Your task to perform on an android device: Search for sushi restaurants on Maps Image 0: 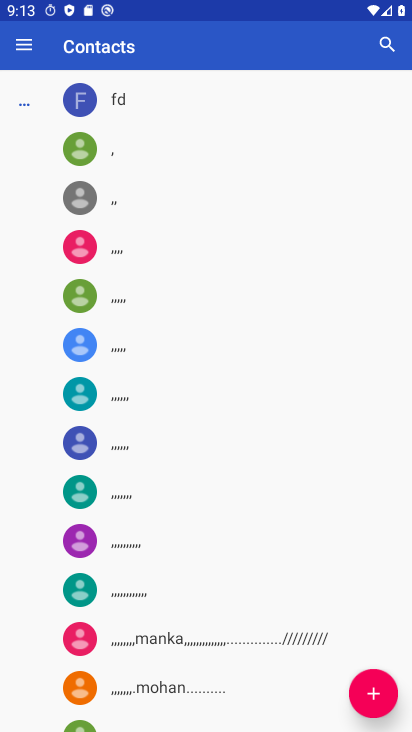
Step 0: press back button
Your task to perform on an android device: Search for sushi restaurants on Maps Image 1: 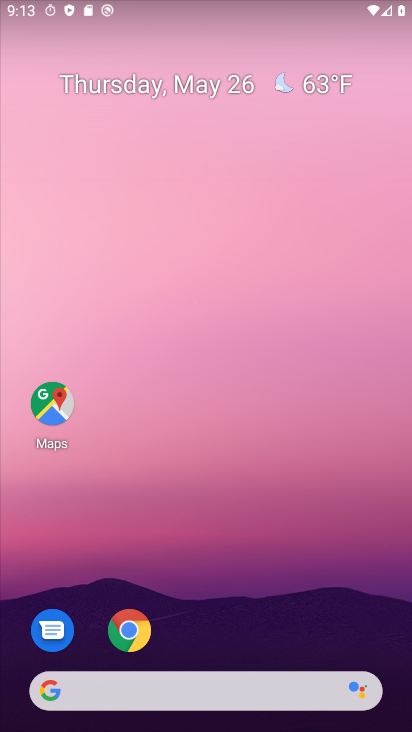
Step 1: drag from (202, 619) to (200, 133)
Your task to perform on an android device: Search for sushi restaurants on Maps Image 2: 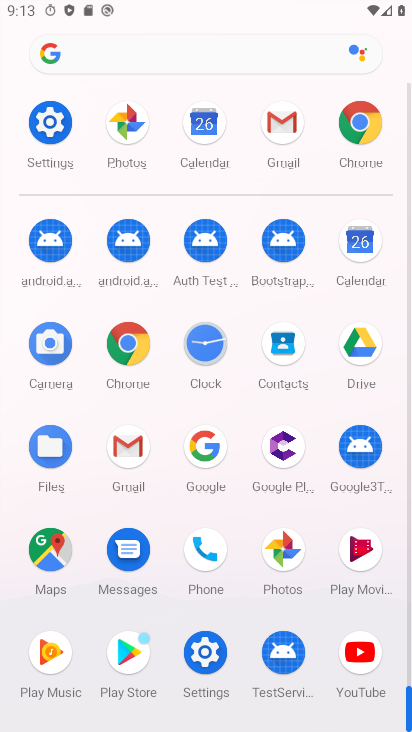
Step 2: click (53, 556)
Your task to perform on an android device: Search for sushi restaurants on Maps Image 3: 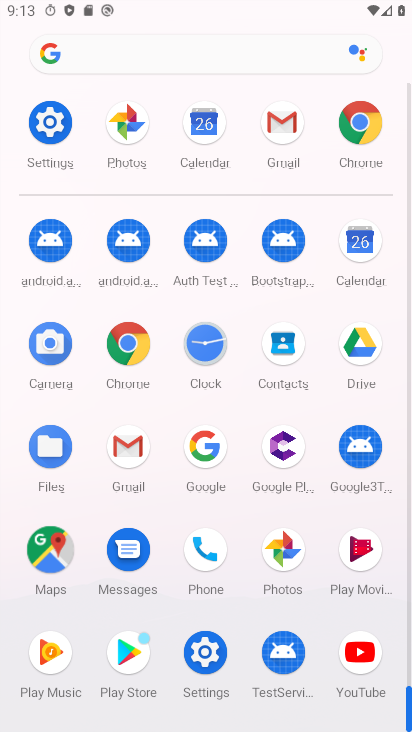
Step 3: click (68, 557)
Your task to perform on an android device: Search for sushi restaurants on Maps Image 4: 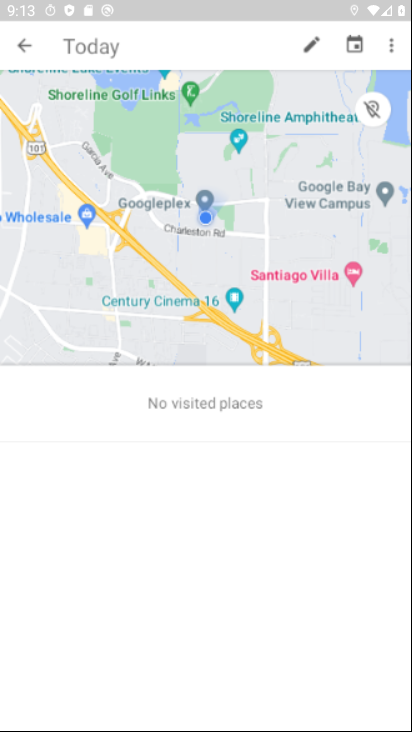
Step 4: click (64, 553)
Your task to perform on an android device: Search for sushi restaurants on Maps Image 5: 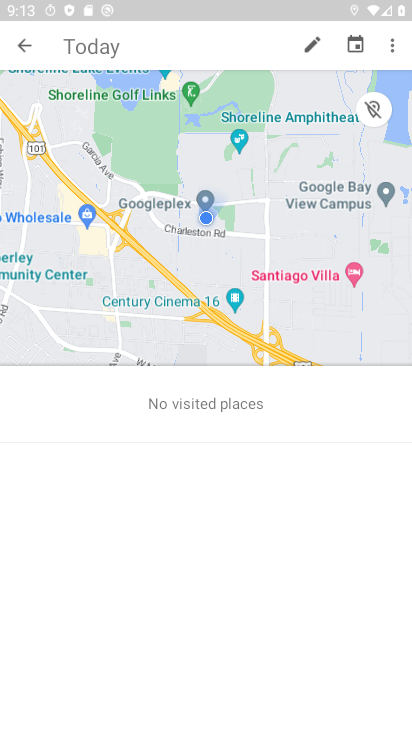
Step 5: click (88, 46)
Your task to perform on an android device: Search for sushi restaurants on Maps Image 6: 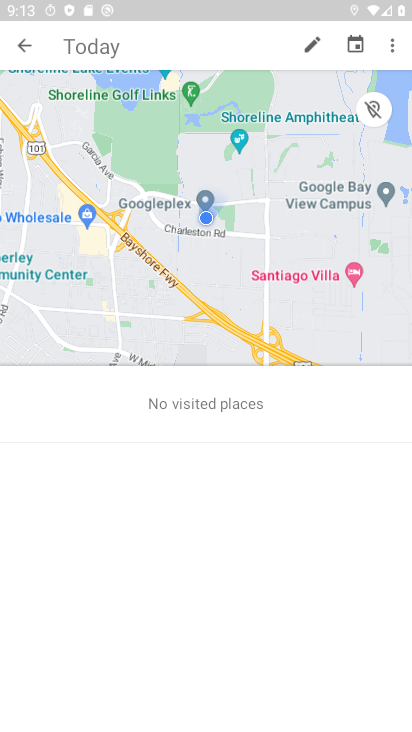
Step 6: click (77, 45)
Your task to perform on an android device: Search for sushi restaurants on Maps Image 7: 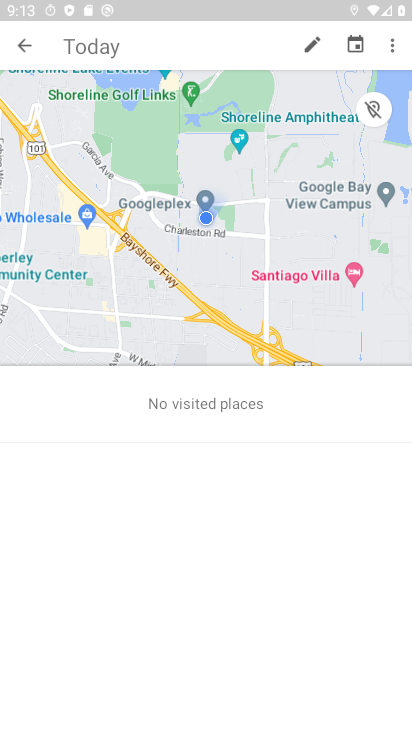
Step 7: click (67, 40)
Your task to perform on an android device: Search for sushi restaurants on Maps Image 8: 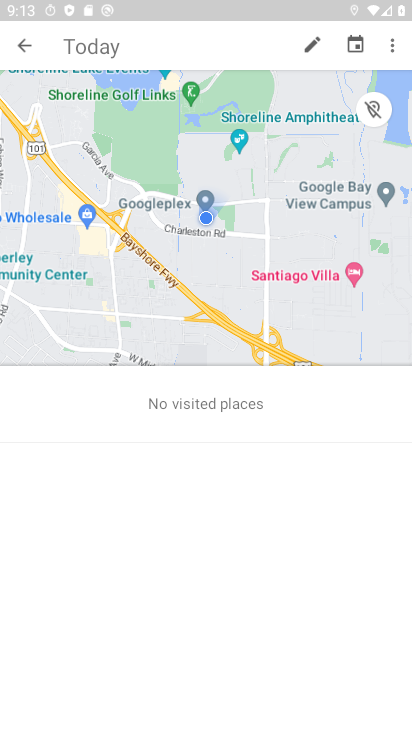
Step 8: click (55, 40)
Your task to perform on an android device: Search for sushi restaurants on Maps Image 9: 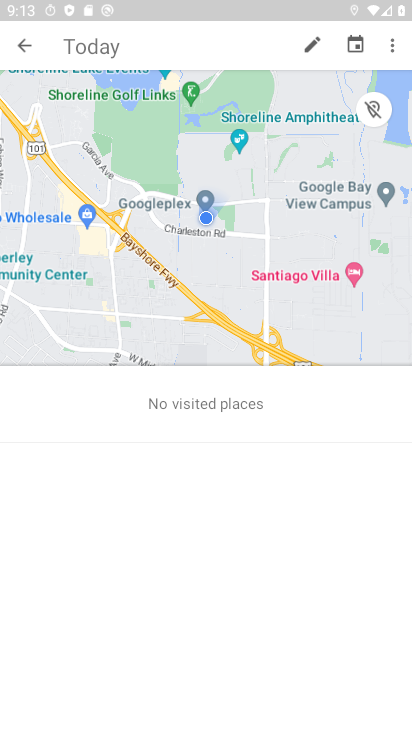
Step 9: click (55, 40)
Your task to perform on an android device: Search for sushi restaurants on Maps Image 10: 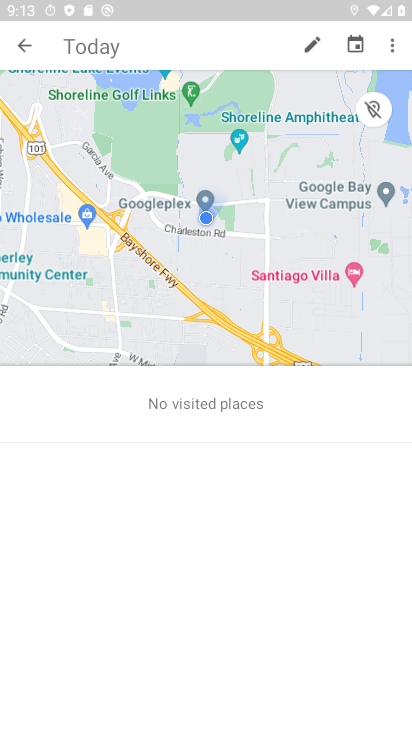
Step 10: click (55, 40)
Your task to perform on an android device: Search for sushi restaurants on Maps Image 11: 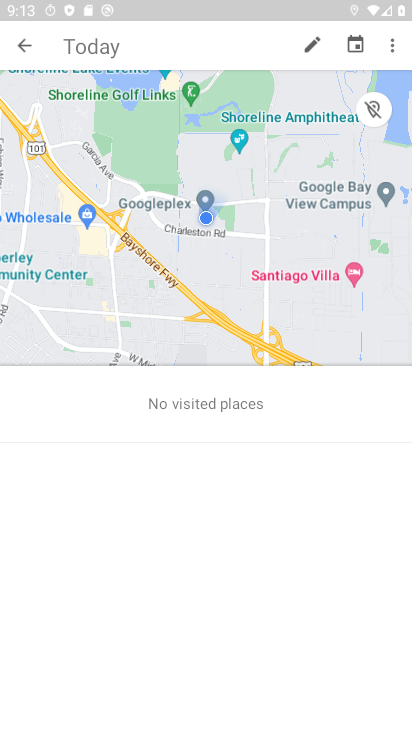
Step 11: type "sushi restaurants"
Your task to perform on an android device: Search for sushi restaurants on Maps Image 12: 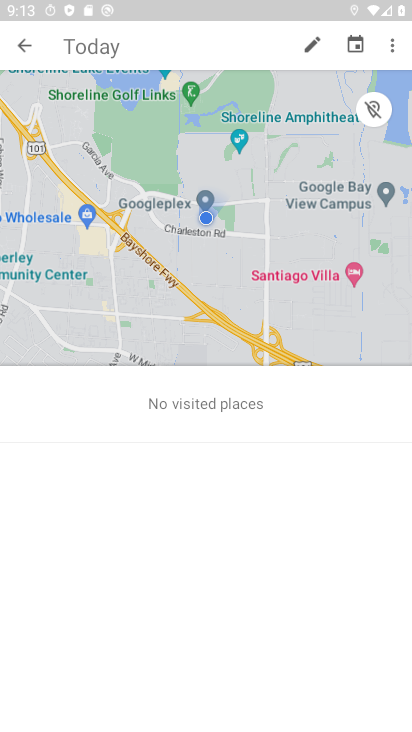
Step 12: click (146, 38)
Your task to perform on an android device: Search for sushi restaurants on Maps Image 13: 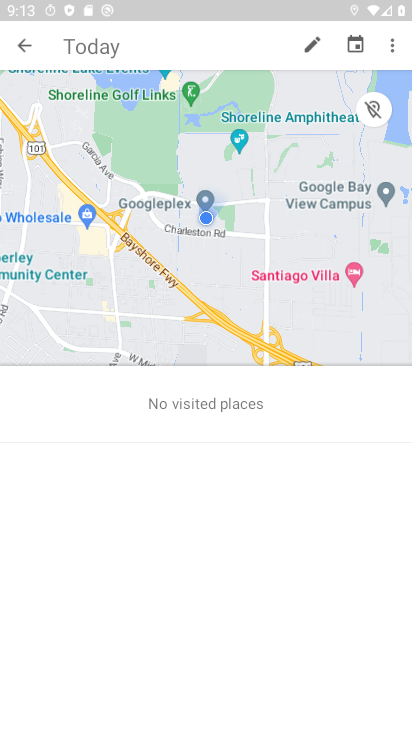
Step 13: click (148, 39)
Your task to perform on an android device: Search for sushi restaurants on Maps Image 14: 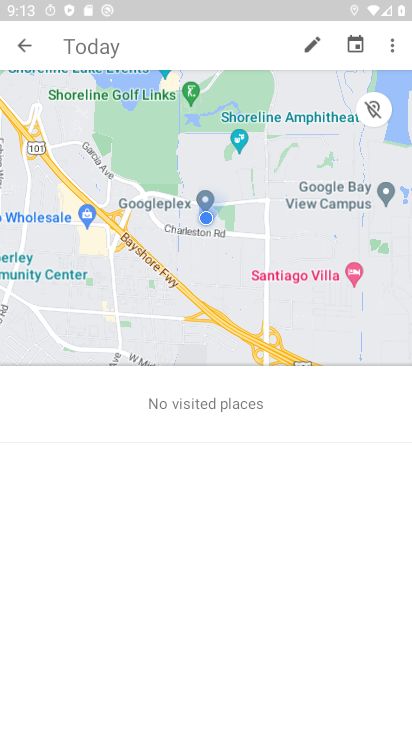
Step 14: click (313, 43)
Your task to perform on an android device: Search for sushi restaurants on Maps Image 15: 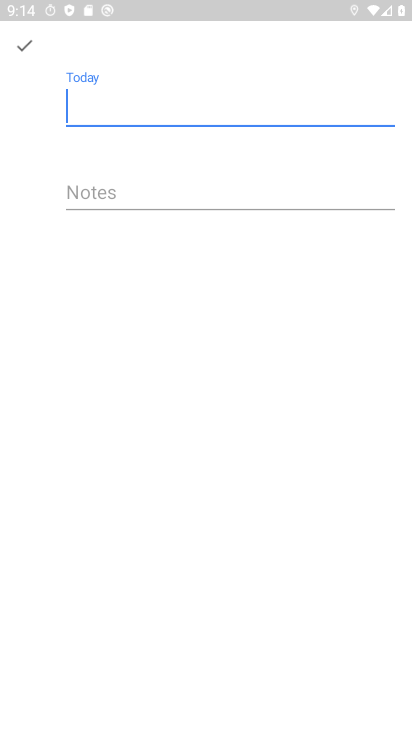
Step 15: click (18, 40)
Your task to perform on an android device: Search for sushi restaurants on Maps Image 16: 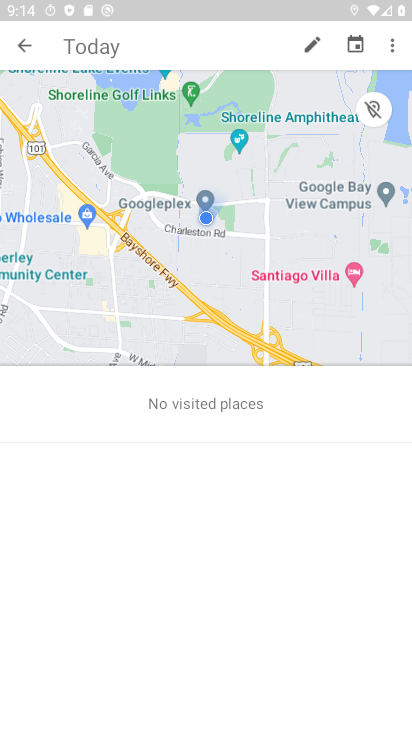
Step 16: click (65, 41)
Your task to perform on an android device: Search for sushi restaurants on Maps Image 17: 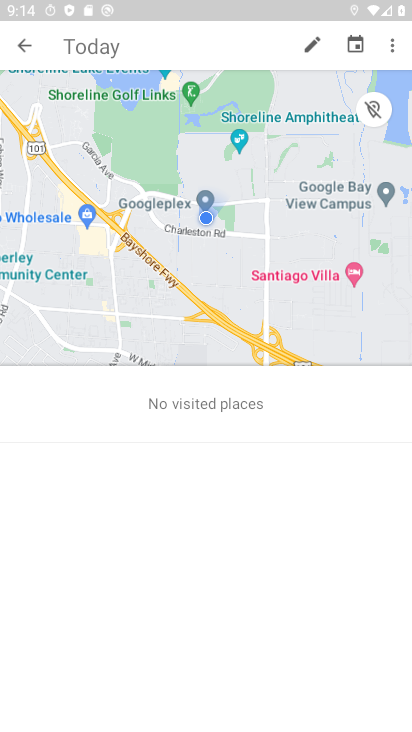
Step 17: click (66, 38)
Your task to perform on an android device: Search for sushi restaurants on Maps Image 18: 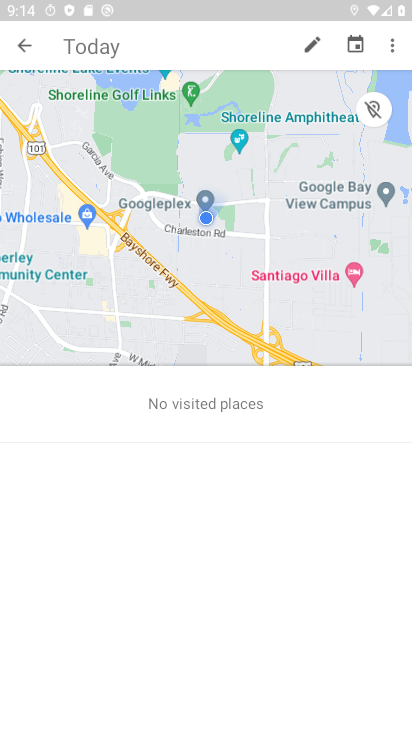
Step 18: click (67, 37)
Your task to perform on an android device: Search for sushi restaurants on Maps Image 19: 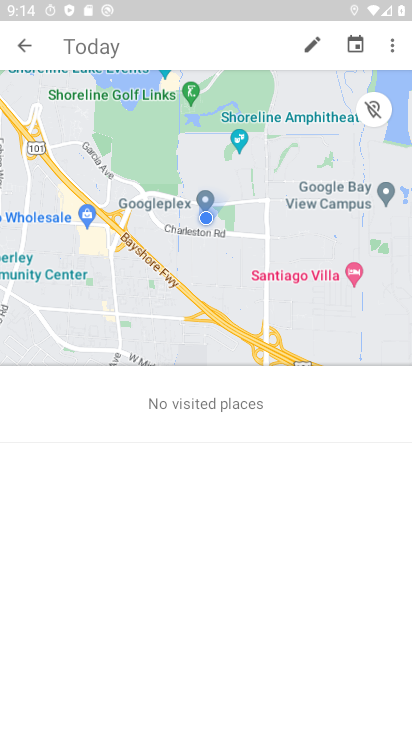
Step 19: click (70, 40)
Your task to perform on an android device: Search for sushi restaurants on Maps Image 20: 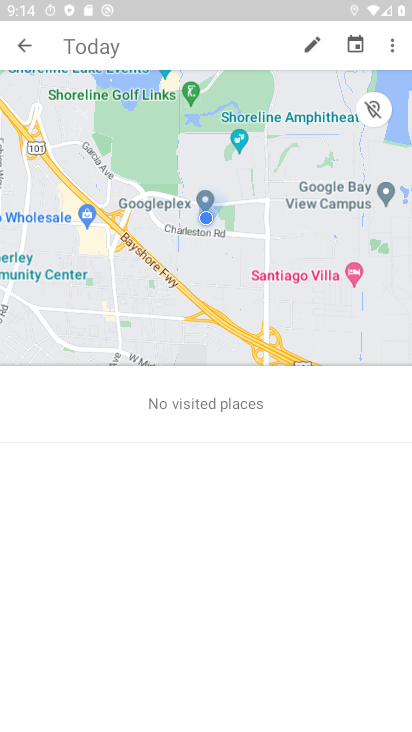
Step 20: click (78, 42)
Your task to perform on an android device: Search for sushi restaurants on Maps Image 21: 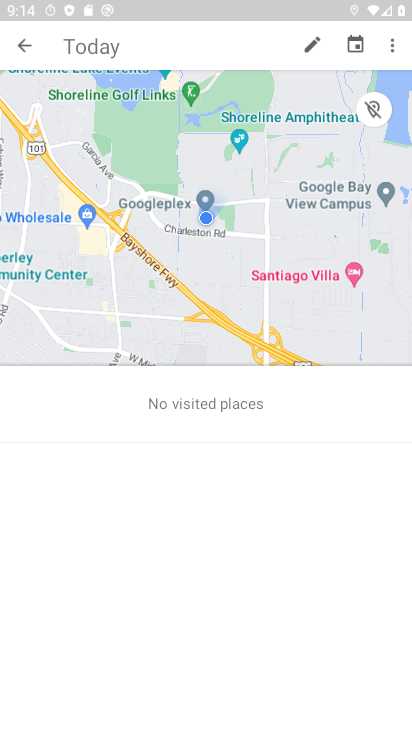
Step 21: click (85, 45)
Your task to perform on an android device: Search for sushi restaurants on Maps Image 22: 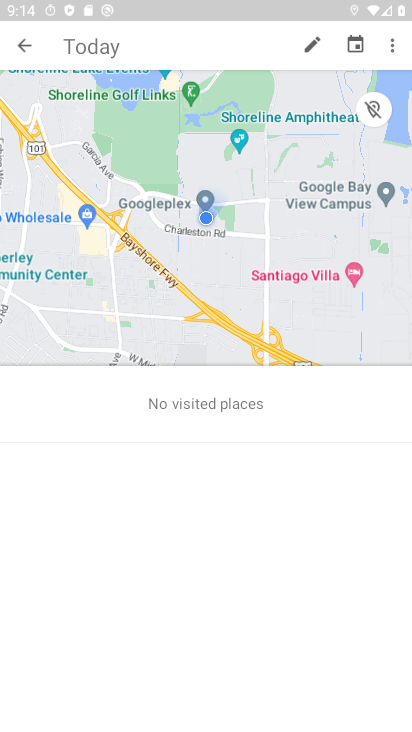
Step 22: click (68, 41)
Your task to perform on an android device: Search for sushi restaurants on Maps Image 23: 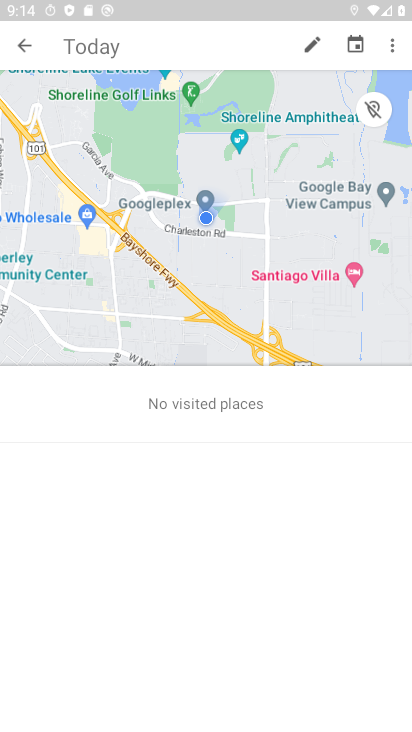
Step 23: click (68, 41)
Your task to perform on an android device: Search for sushi restaurants on Maps Image 24: 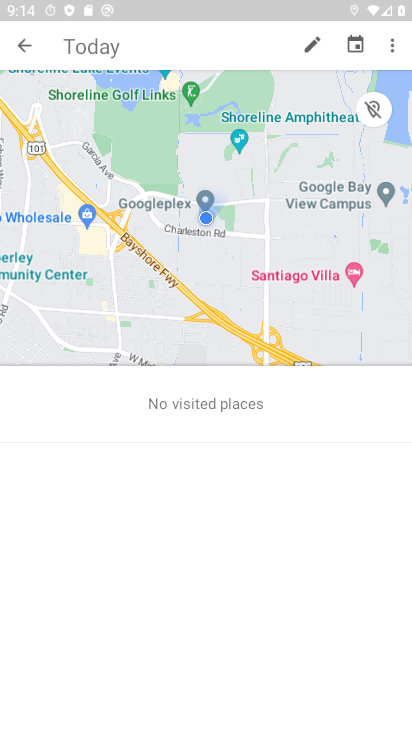
Step 24: click (69, 42)
Your task to perform on an android device: Search for sushi restaurants on Maps Image 25: 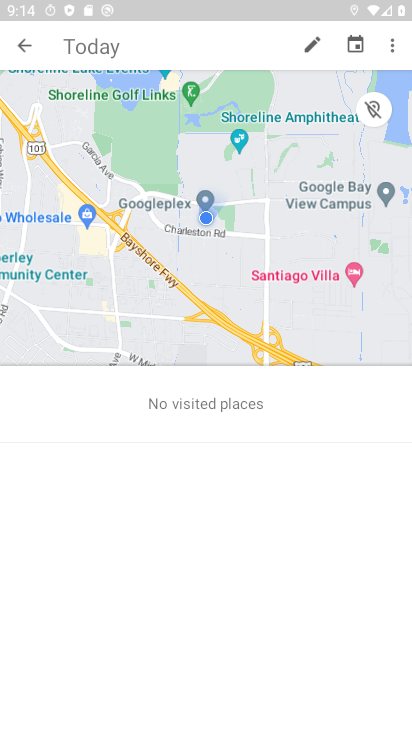
Step 25: drag from (71, 41) to (30, 38)
Your task to perform on an android device: Search for sushi restaurants on Maps Image 26: 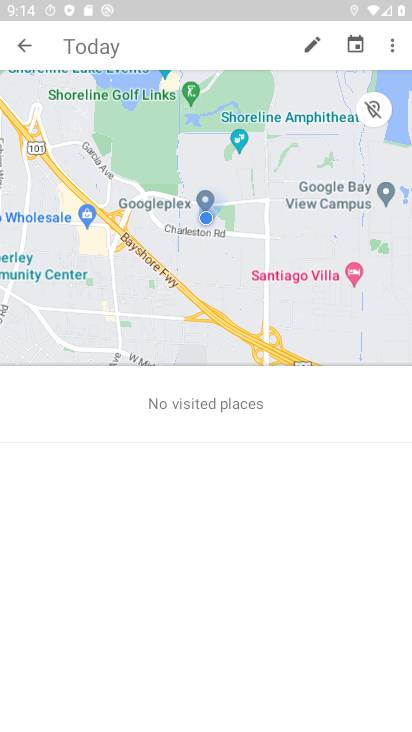
Step 26: click (26, 40)
Your task to perform on an android device: Search for sushi restaurants on Maps Image 27: 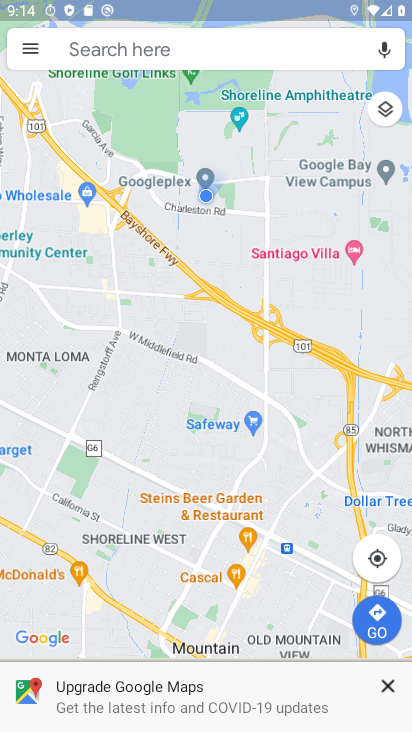
Step 27: task complete